Your task to perform on an android device: Turn on the flashlight Image 0: 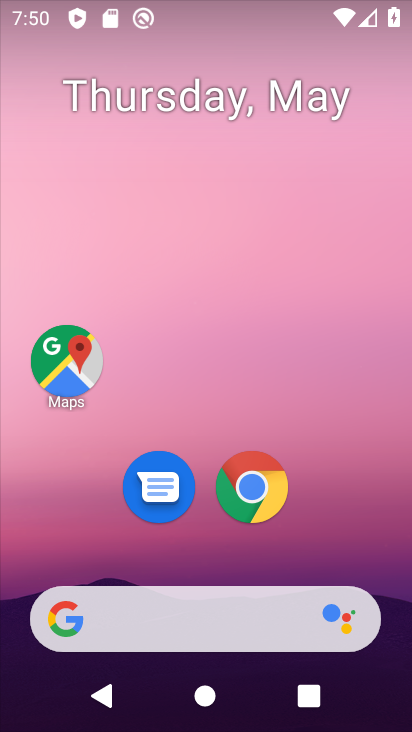
Step 0: drag from (202, 553) to (238, 190)
Your task to perform on an android device: Turn on the flashlight Image 1: 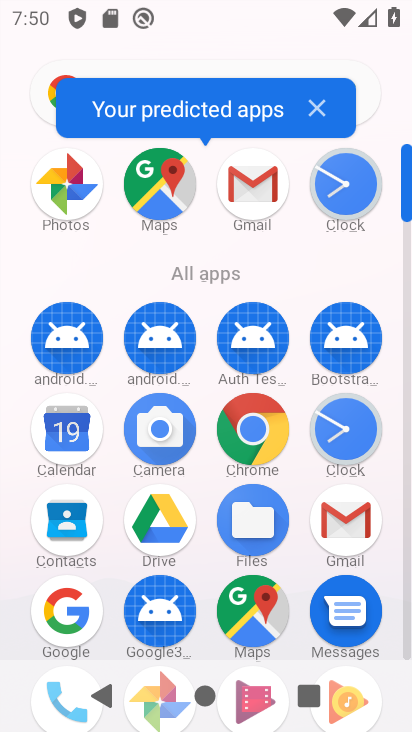
Step 1: drag from (208, 652) to (217, 257)
Your task to perform on an android device: Turn on the flashlight Image 2: 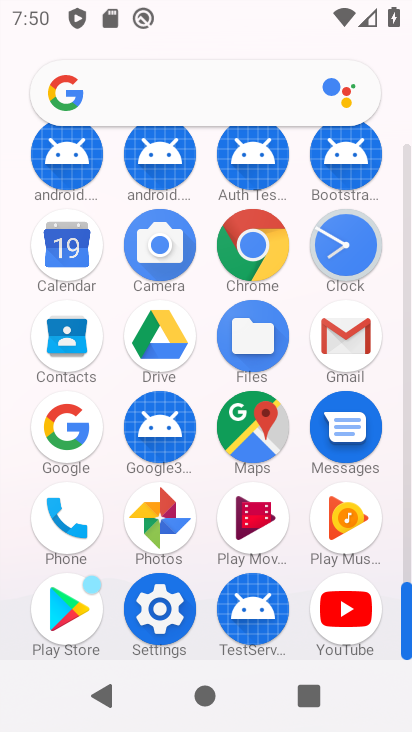
Step 2: click (162, 588)
Your task to perform on an android device: Turn on the flashlight Image 3: 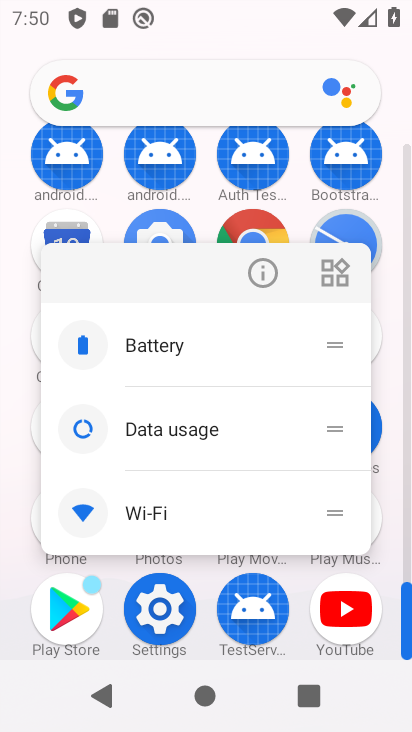
Step 3: click (258, 272)
Your task to perform on an android device: Turn on the flashlight Image 4: 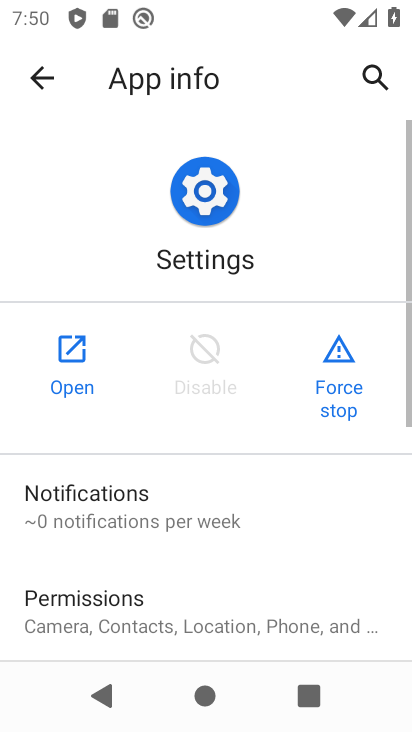
Step 4: click (75, 383)
Your task to perform on an android device: Turn on the flashlight Image 5: 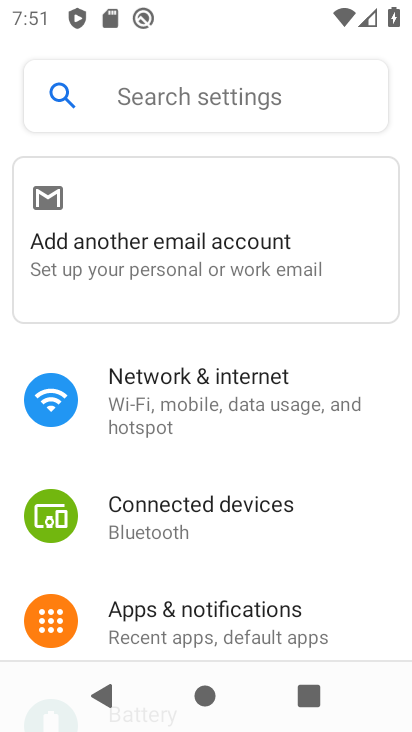
Step 5: drag from (249, 261) to (286, 167)
Your task to perform on an android device: Turn on the flashlight Image 6: 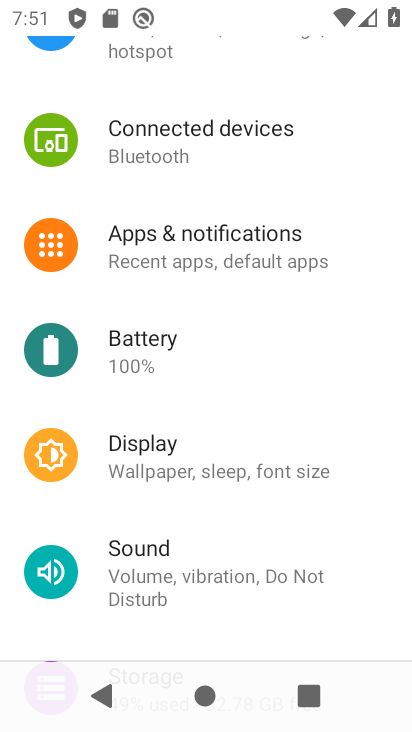
Step 6: click (224, 76)
Your task to perform on an android device: Turn on the flashlight Image 7: 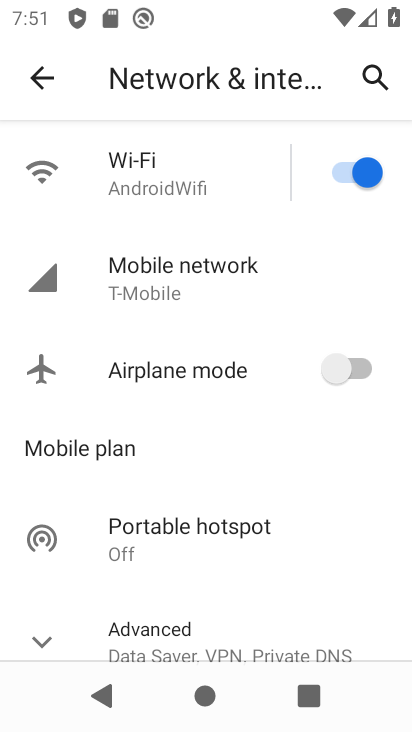
Step 7: click (42, 72)
Your task to perform on an android device: Turn on the flashlight Image 8: 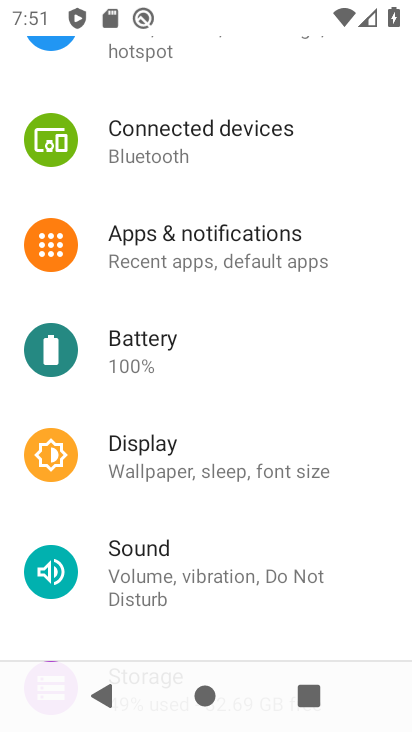
Step 8: drag from (240, 151) to (338, 731)
Your task to perform on an android device: Turn on the flashlight Image 9: 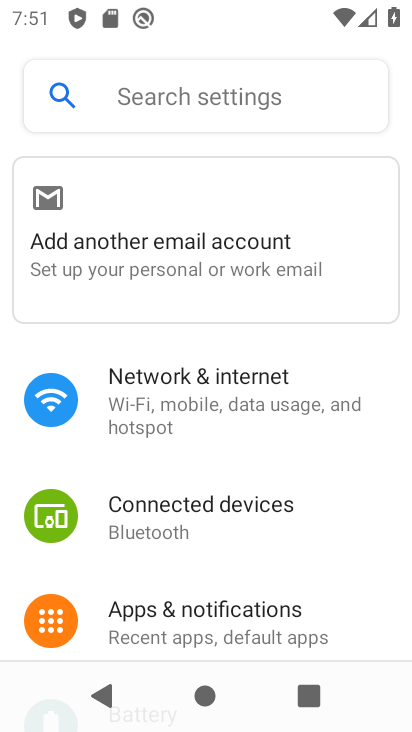
Step 9: click (186, 76)
Your task to perform on an android device: Turn on the flashlight Image 10: 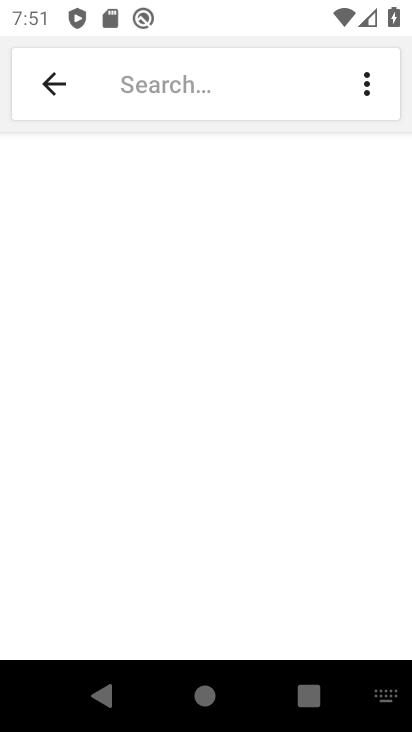
Step 10: type "flashlight"
Your task to perform on an android device: Turn on the flashlight Image 11: 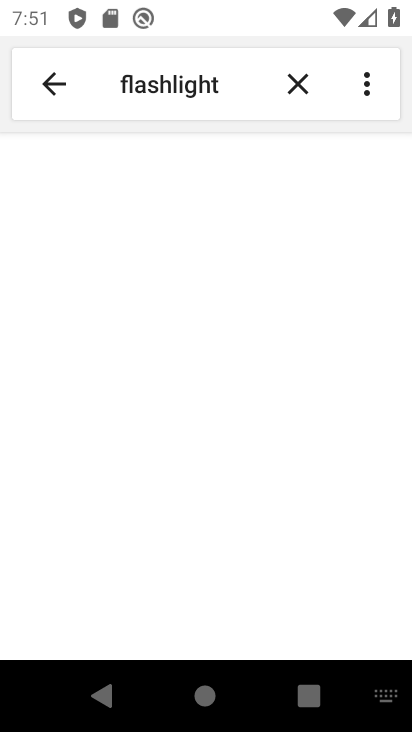
Step 11: click (211, 186)
Your task to perform on an android device: Turn on the flashlight Image 12: 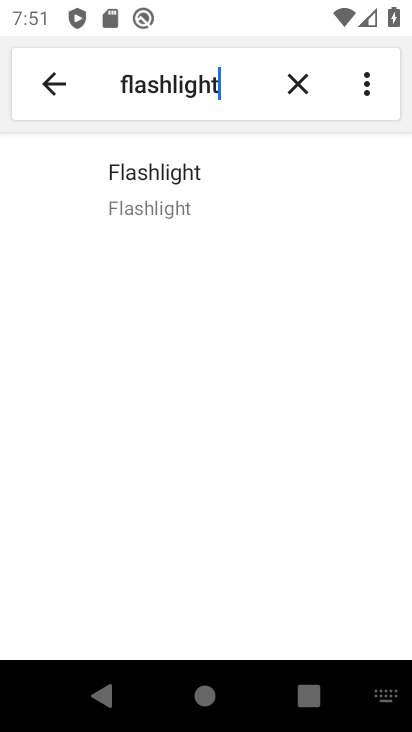
Step 12: click (218, 176)
Your task to perform on an android device: Turn on the flashlight Image 13: 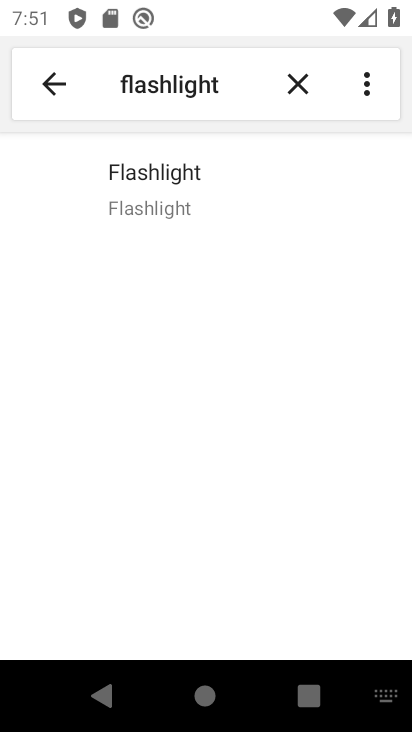
Step 13: task complete